Your task to perform on an android device: toggle sleep mode Image 0: 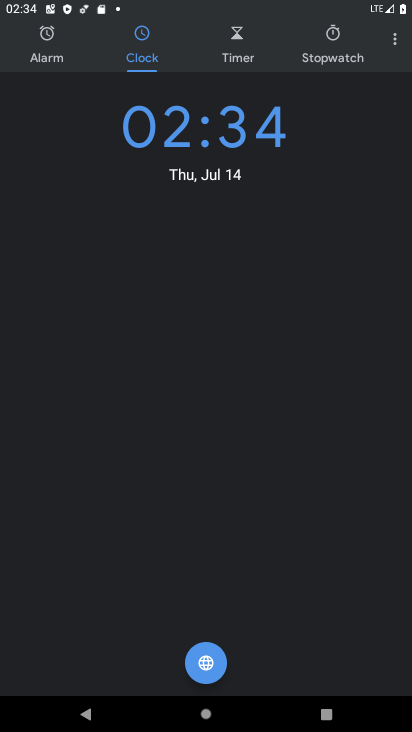
Step 0: press home button
Your task to perform on an android device: toggle sleep mode Image 1: 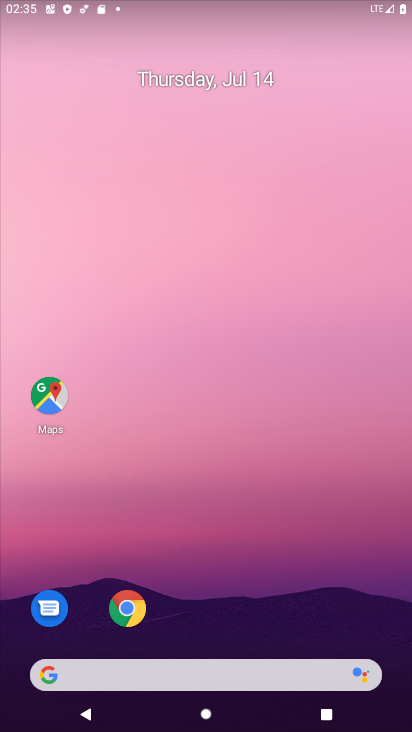
Step 1: drag from (44, 593) to (264, 95)
Your task to perform on an android device: toggle sleep mode Image 2: 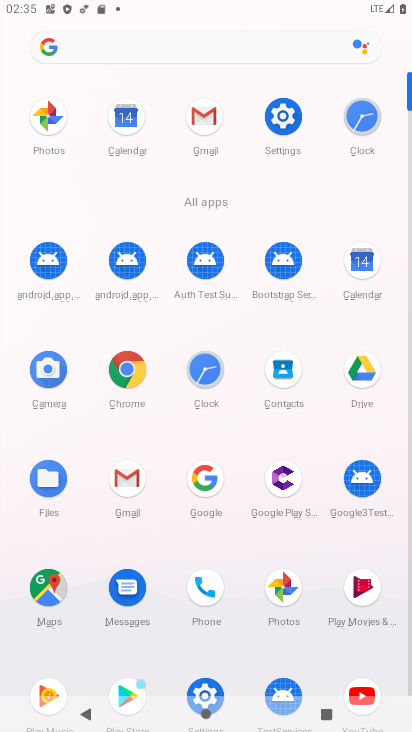
Step 2: click (285, 130)
Your task to perform on an android device: toggle sleep mode Image 3: 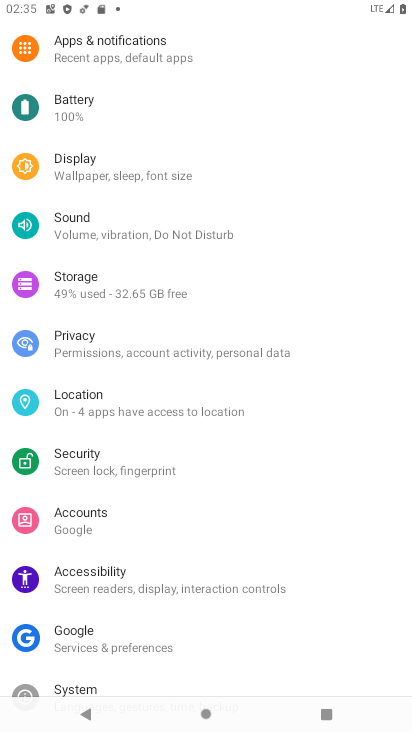
Step 3: task complete